Your task to perform on an android device: turn on sleep mode Image 0: 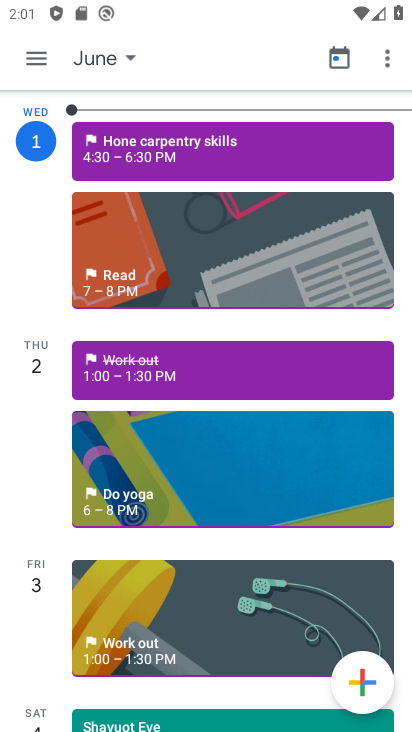
Step 0: press home button
Your task to perform on an android device: turn on sleep mode Image 1: 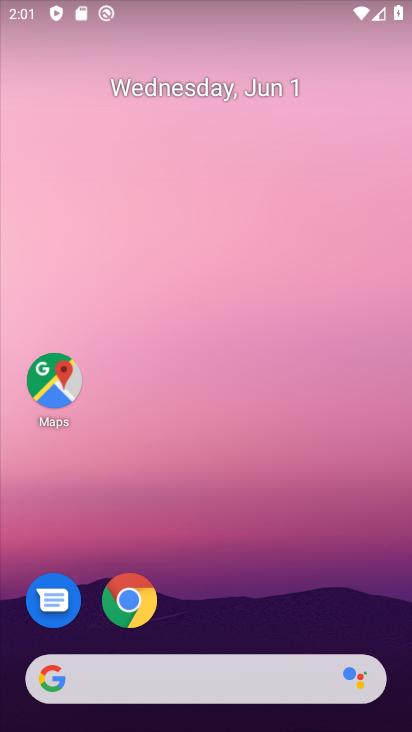
Step 1: drag from (256, 623) to (208, 150)
Your task to perform on an android device: turn on sleep mode Image 2: 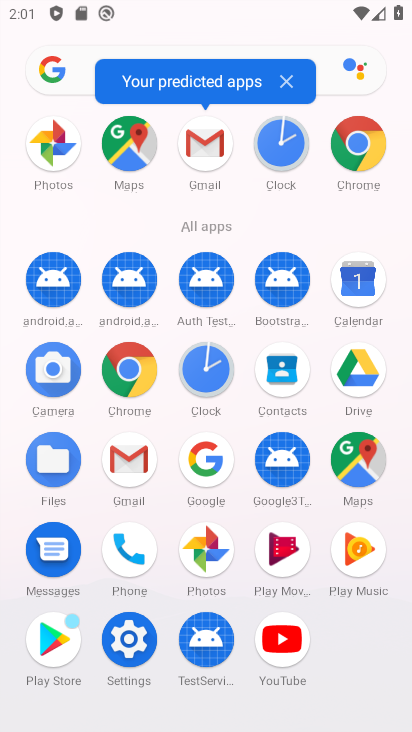
Step 2: click (130, 641)
Your task to perform on an android device: turn on sleep mode Image 3: 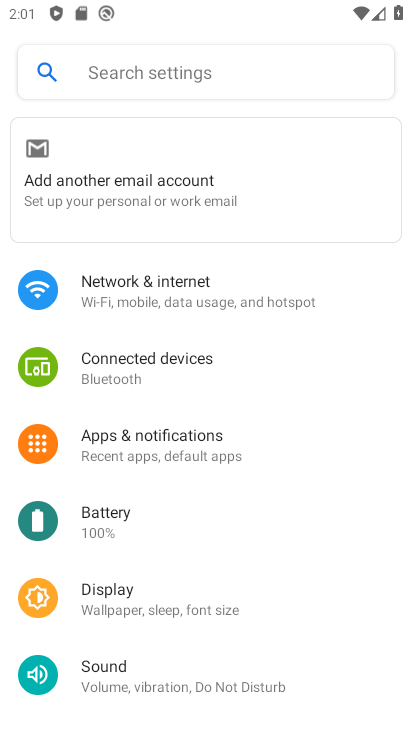
Step 3: click (159, 598)
Your task to perform on an android device: turn on sleep mode Image 4: 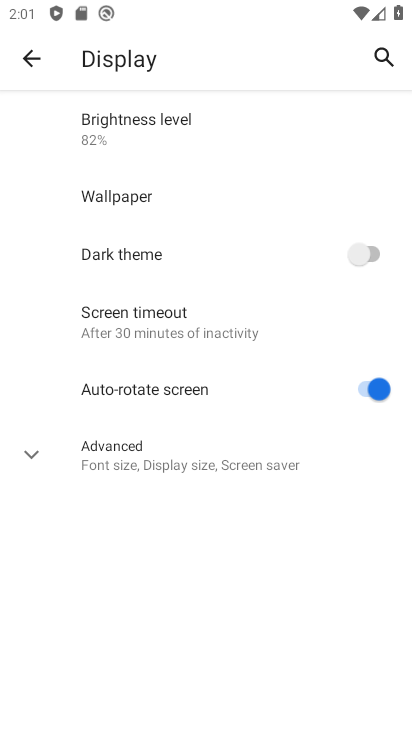
Step 4: click (231, 442)
Your task to perform on an android device: turn on sleep mode Image 5: 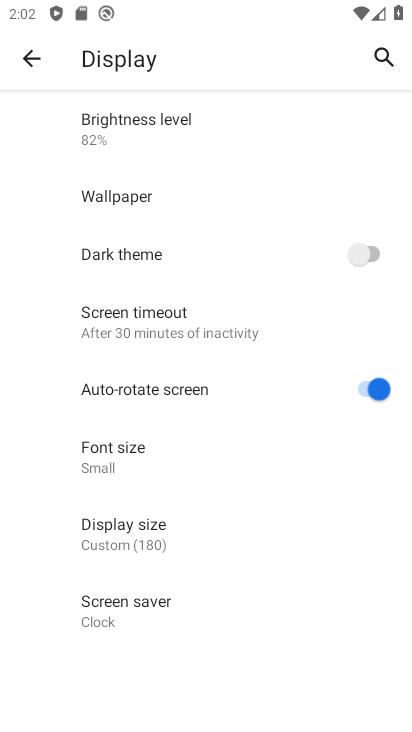
Step 5: task complete